Your task to perform on an android device: Turn on the flashlight Image 0: 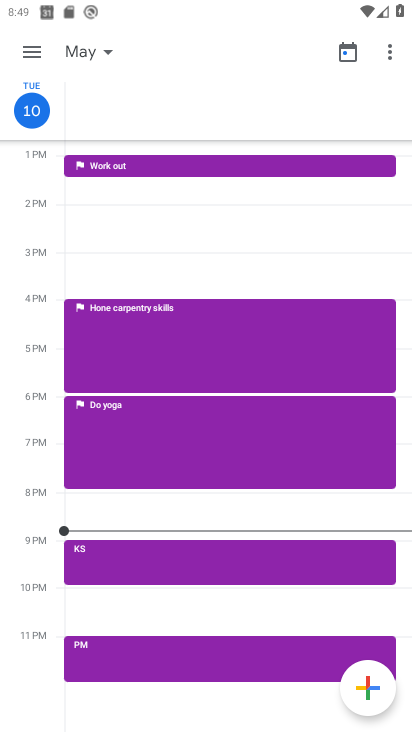
Step 0: press home button
Your task to perform on an android device: Turn on the flashlight Image 1: 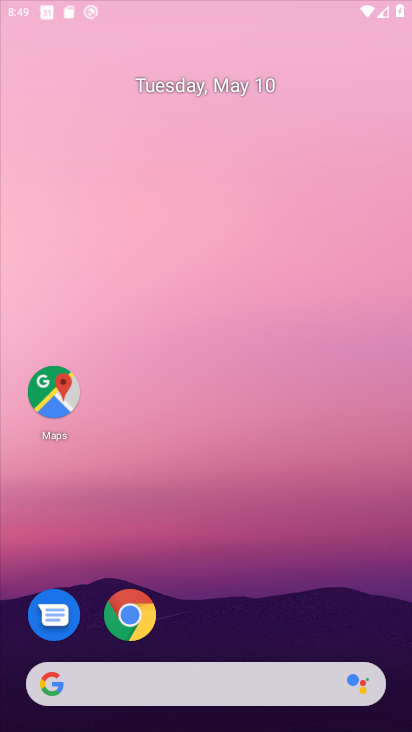
Step 1: drag from (175, 664) to (182, 170)
Your task to perform on an android device: Turn on the flashlight Image 2: 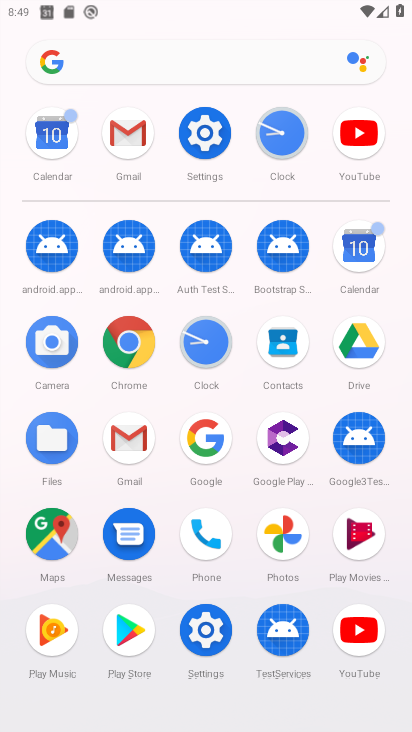
Step 2: click (221, 140)
Your task to perform on an android device: Turn on the flashlight Image 3: 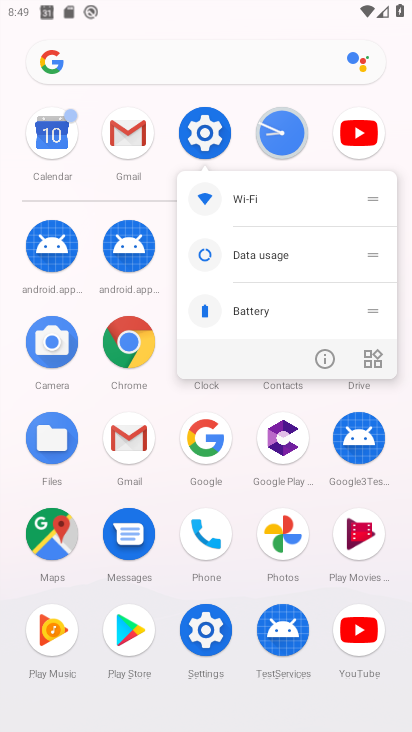
Step 3: click (326, 354)
Your task to perform on an android device: Turn on the flashlight Image 4: 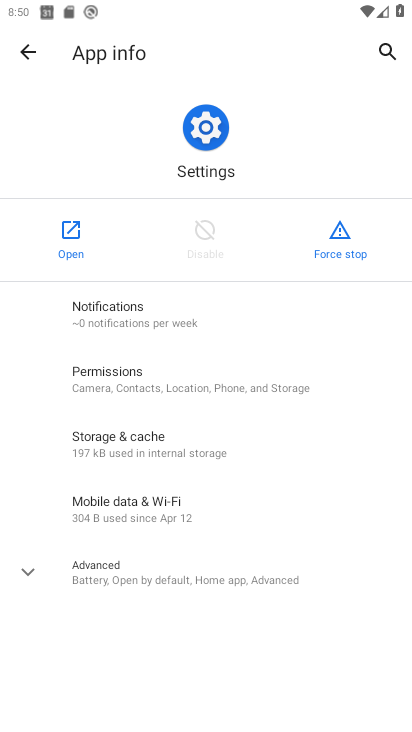
Step 4: click (62, 250)
Your task to perform on an android device: Turn on the flashlight Image 5: 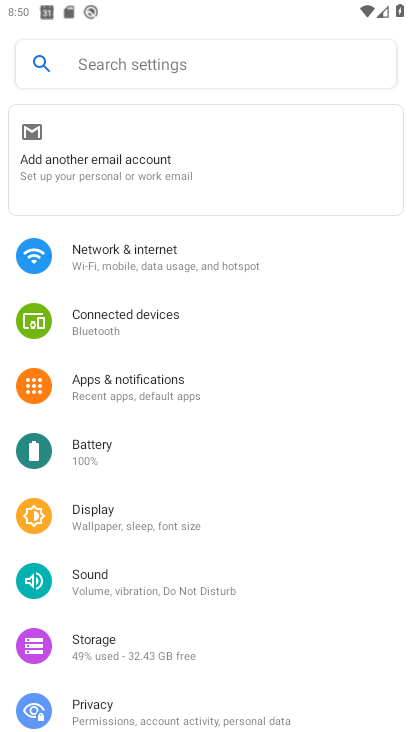
Step 5: click (156, 60)
Your task to perform on an android device: Turn on the flashlight Image 6: 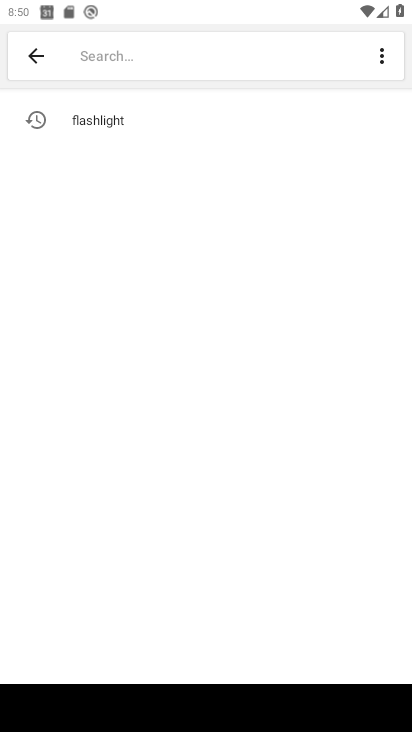
Step 6: click (124, 110)
Your task to perform on an android device: Turn on the flashlight Image 7: 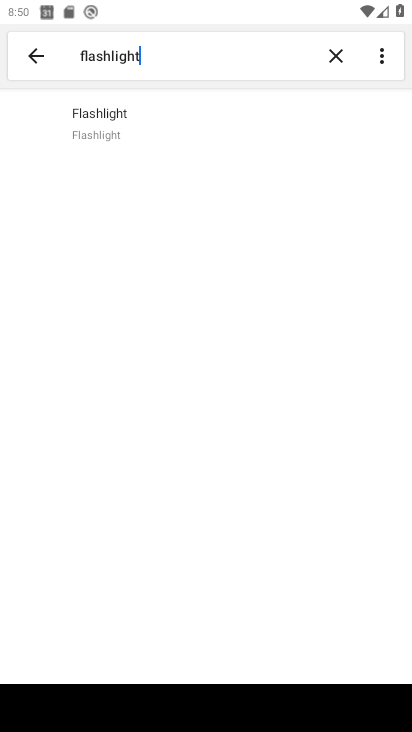
Step 7: task complete